Your task to perform on an android device: allow notifications from all sites in the chrome app Image 0: 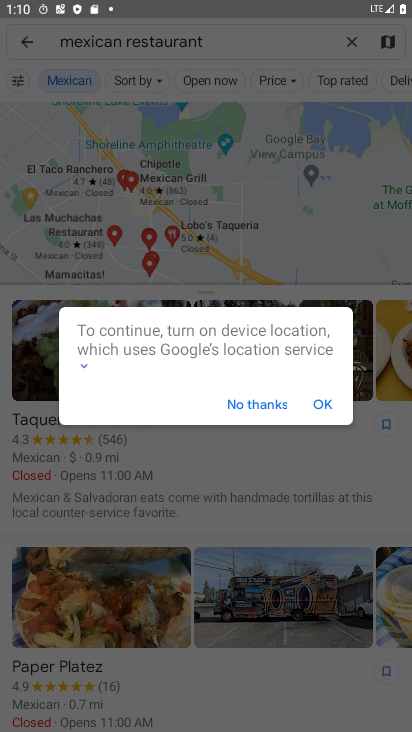
Step 0: press home button
Your task to perform on an android device: allow notifications from all sites in the chrome app Image 1: 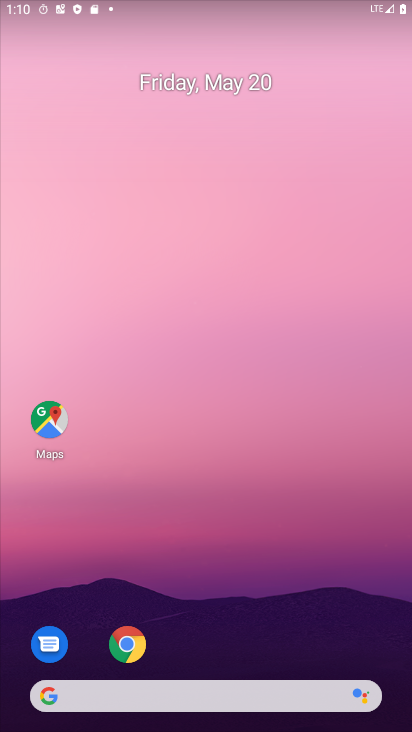
Step 1: drag from (275, 586) to (252, 84)
Your task to perform on an android device: allow notifications from all sites in the chrome app Image 2: 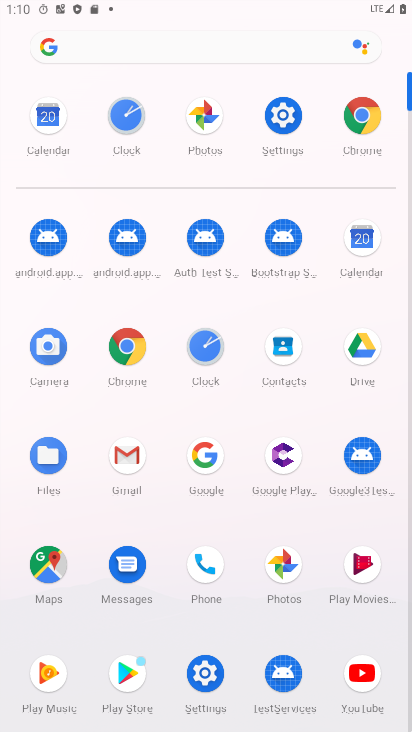
Step 2: click (365, 124)
Your task to perform on an android device: allow notifications from all sites in the chrome app Image 3: 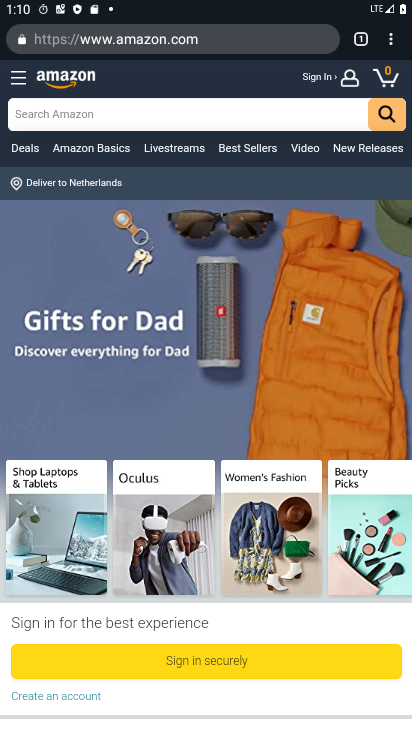
Step 3: drag from (394, 46) to (274, 429)
Your task to perform on an android device: allow notifications from all sites in the chrome app Image 4: 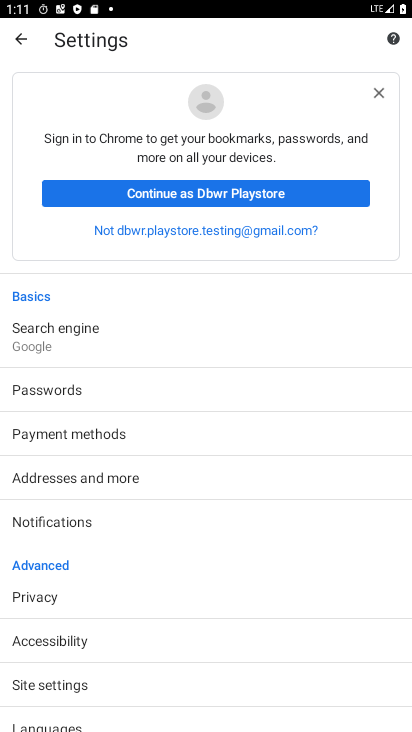
Step 4: drag from (66, 624) to (97, 335)
Your task to perform on an android device: allow notifications from all sites in the chrome app Image 5: 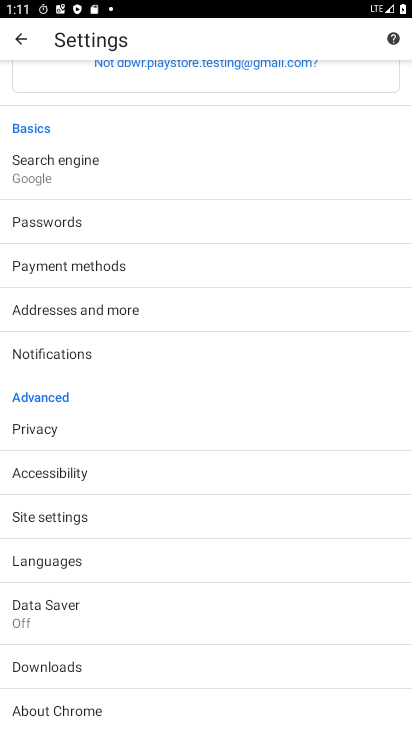
Step 5: click (77, 523)
Your task to perform on an android device: allow notifications from all sites in the chrome app Image 6: 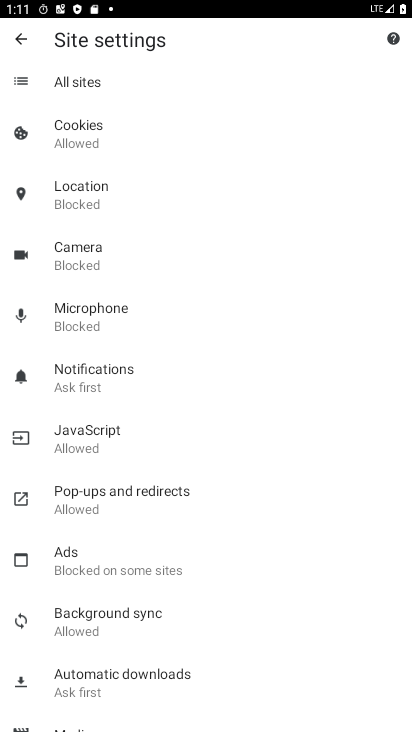
Step 6: click (109, 377)
Your task to perform on an android device: allow notifications from all sites in the chrome app Image 7: 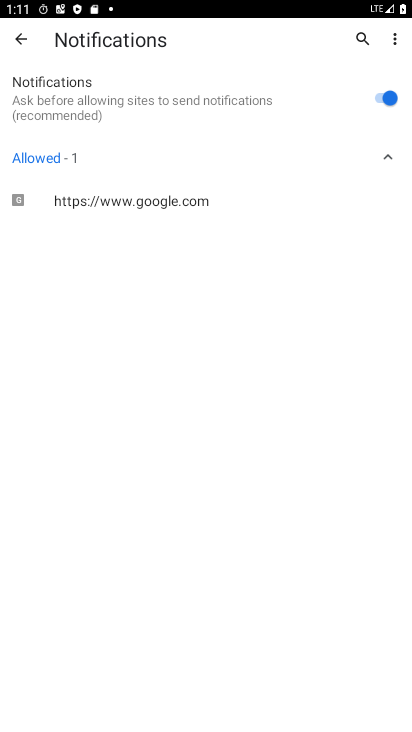
Step 7: task complete